Your task to perform on an android device: clear history in the chrome app Image 0: 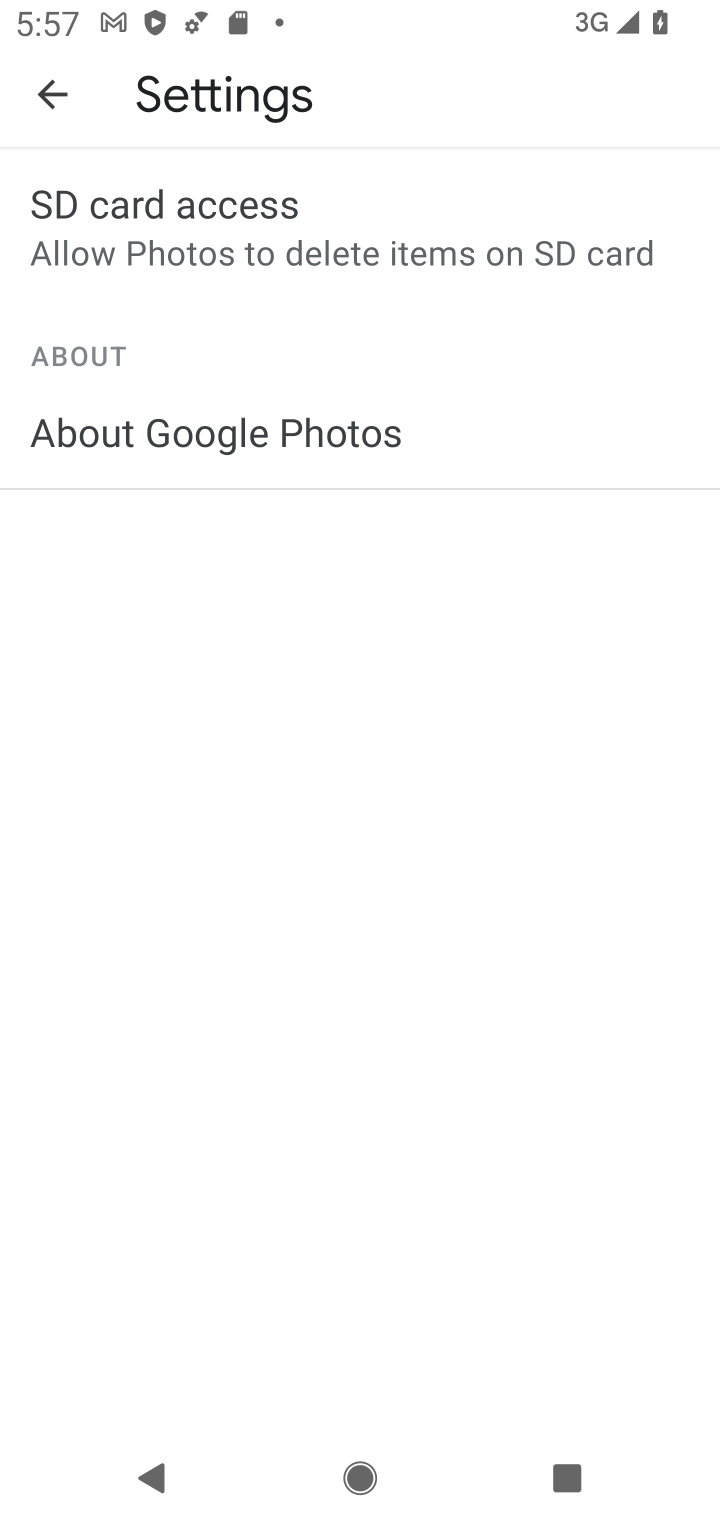
Step 0: press home button
Your task to perform on an android device: clear history in the chrome app Image 1: 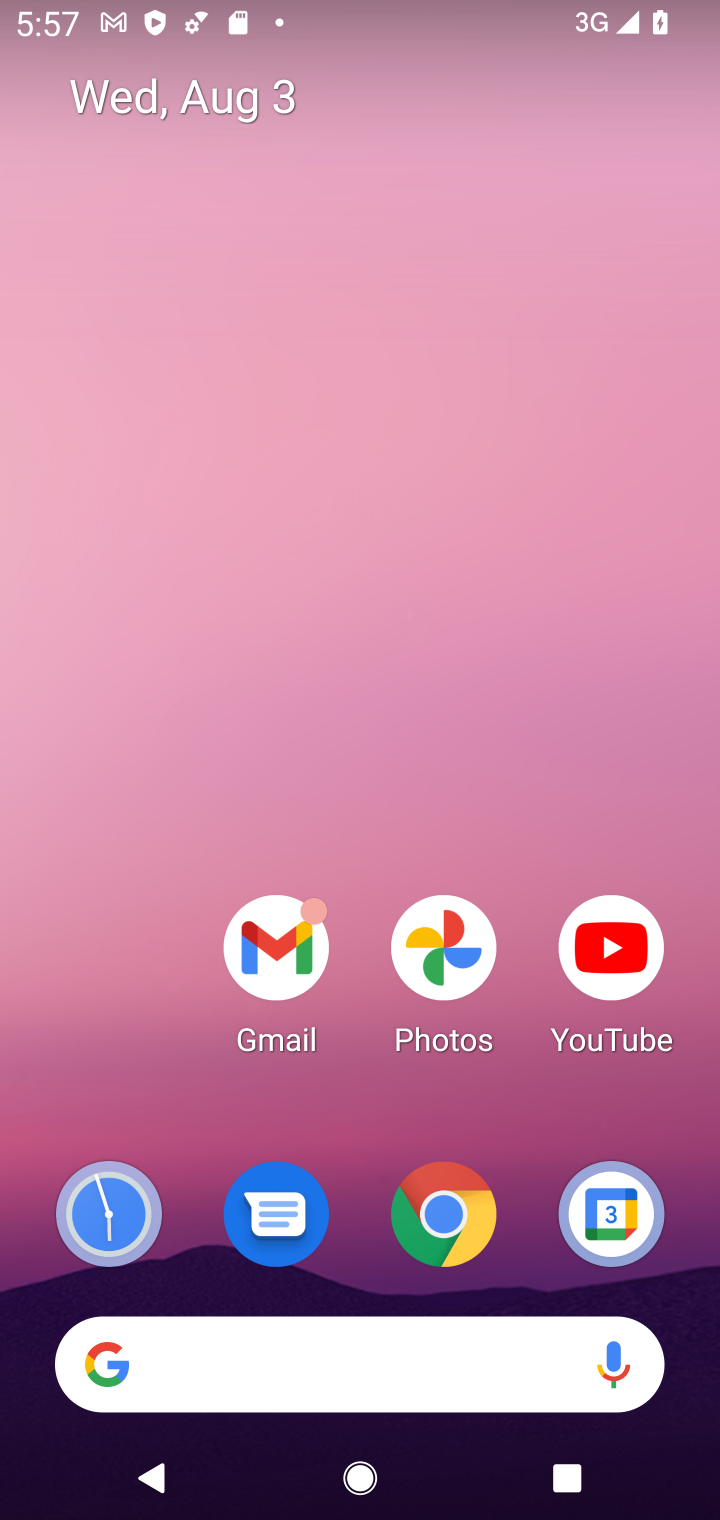
Step 1: click (448, 1204)
Your task to perform on an android device: clear history in the chrome app Image 2: 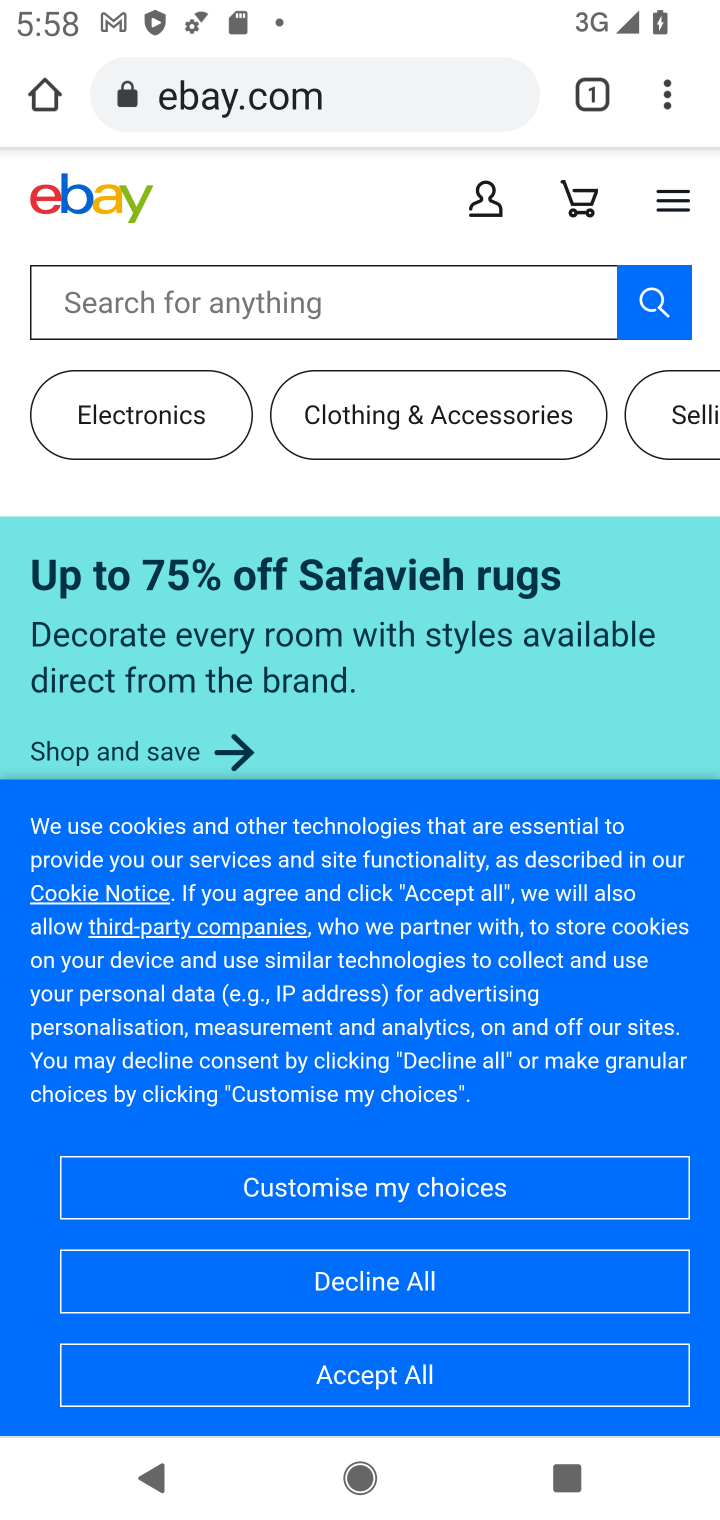
Step 2: click (659, 80)
Your task to perform on an android device: clear history in the chrome app Image 3: 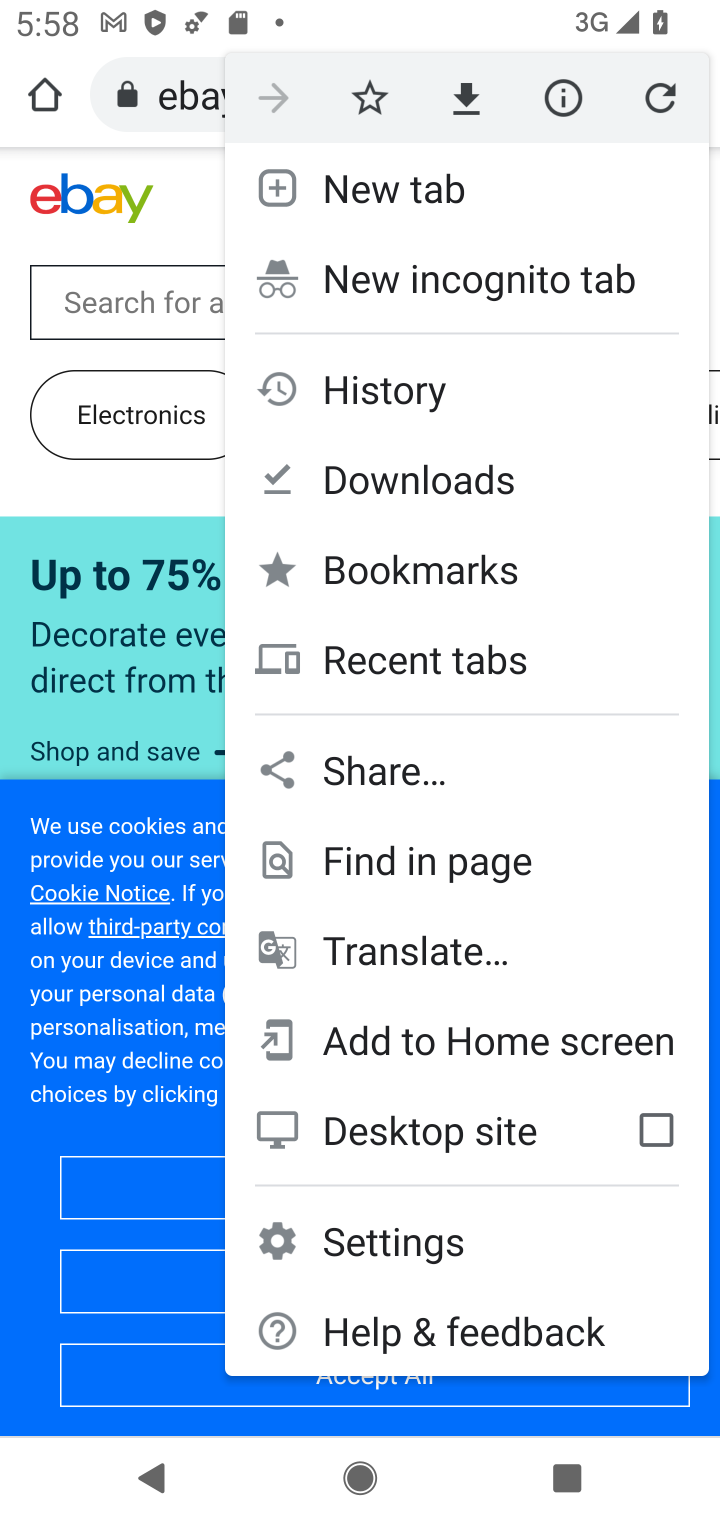
Step 3: click (397, 398)
Your task to perform on an android device: clear history in the chrome app Image 4: 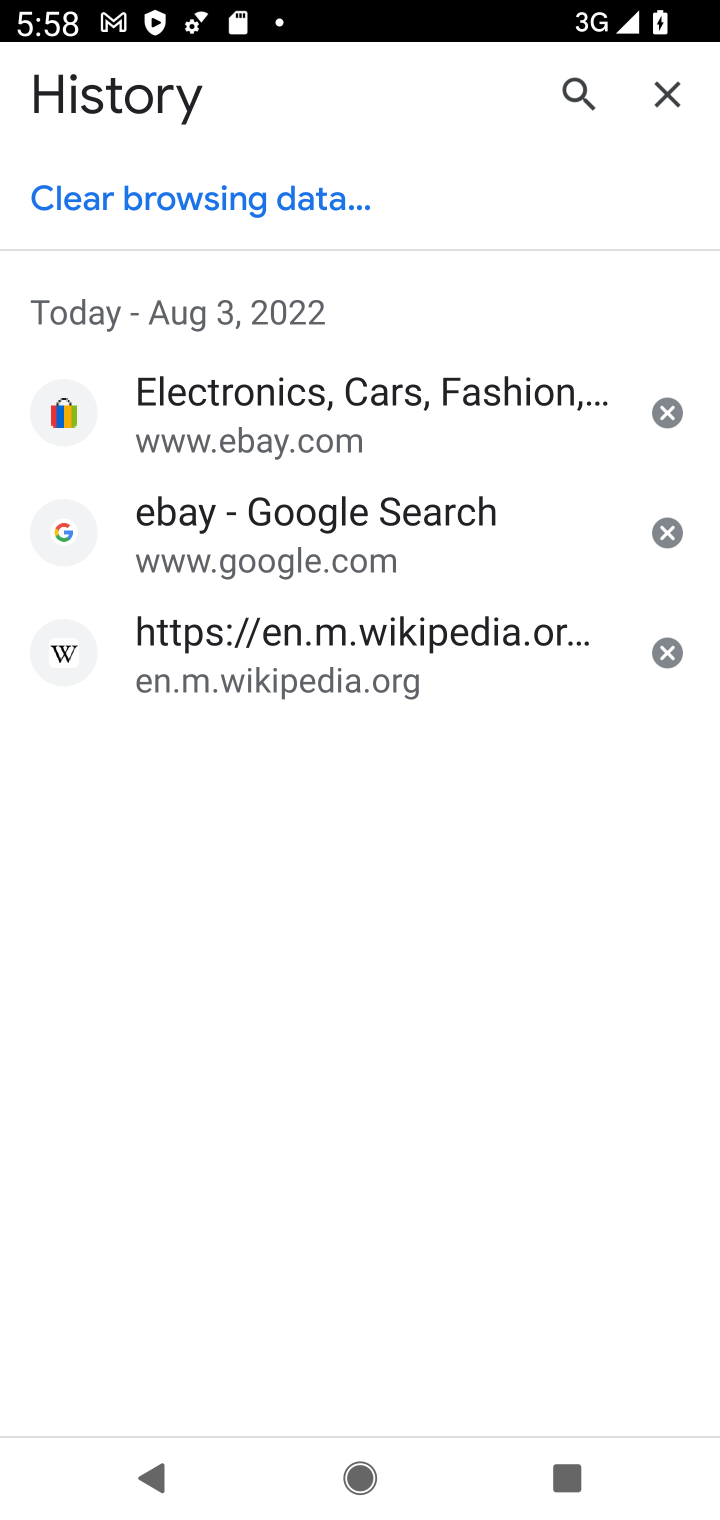
Step 4: click (271, 207)
Your task to perform on an android device: clear history in the chrome app Image 5: 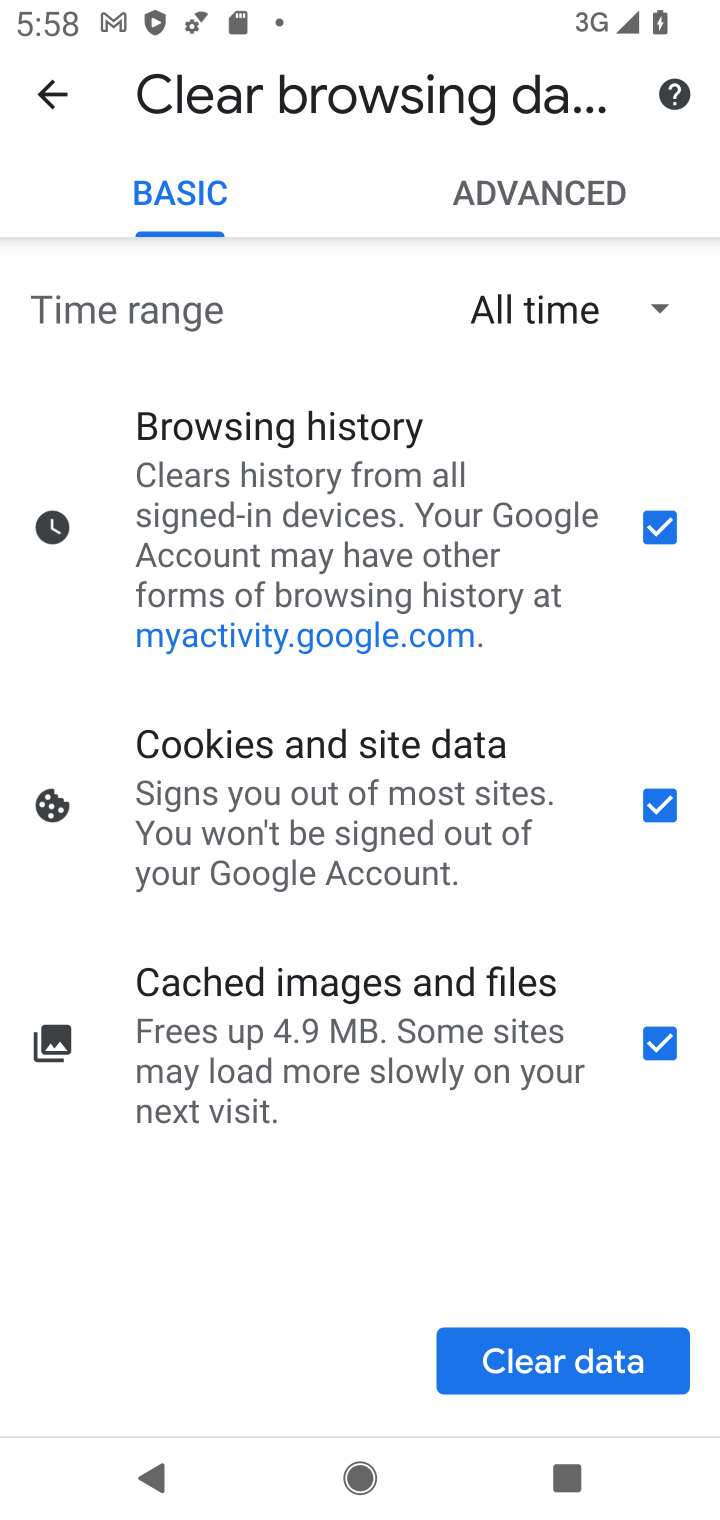
Step 5: click (468, 1352)
Your task to perform on an android device: clear history in the chrome app Image 6: 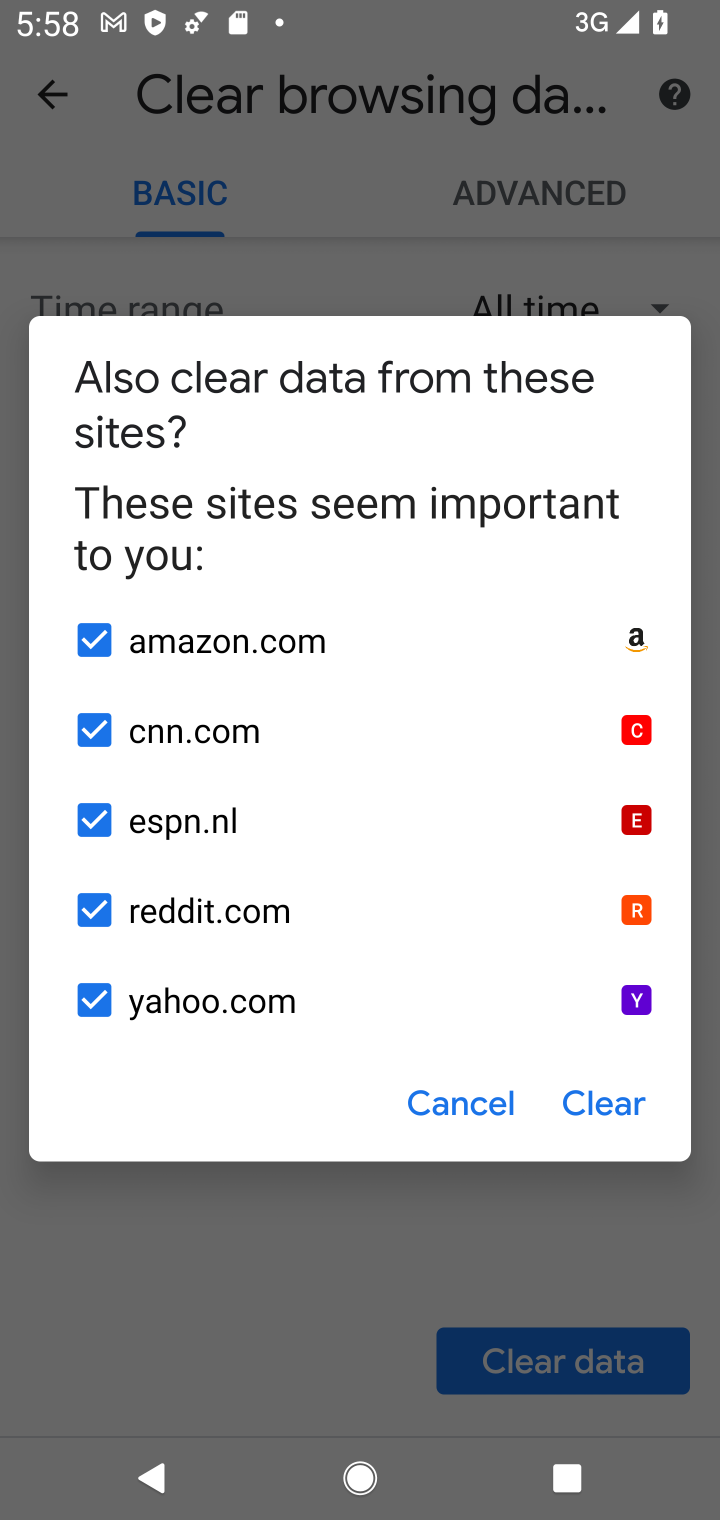
Step 6: click (639, 1096)
Your task to perform on an android device: clear history in the chrome app Image 7: 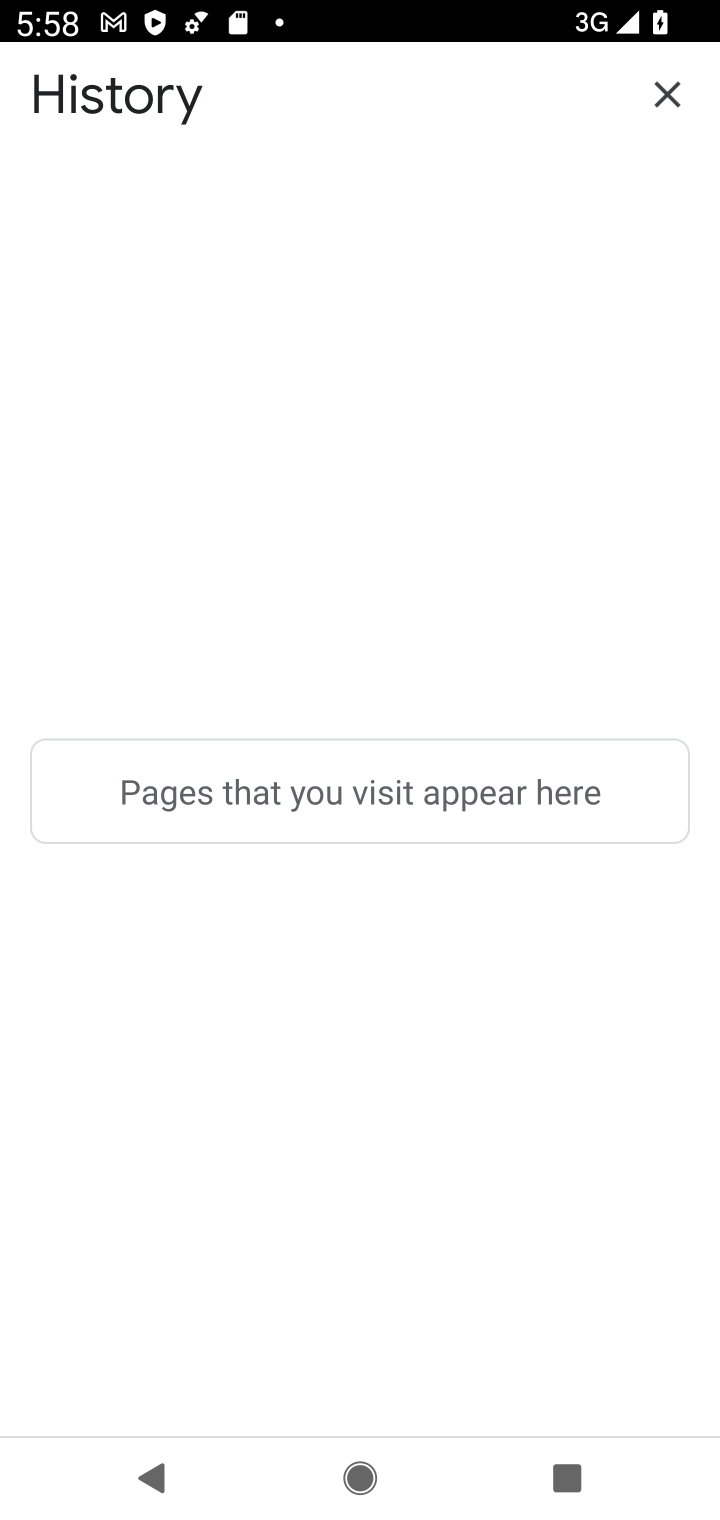
Step 7: task complete